Your task to perform on an android device: Search for the new nike shoes on Target Image 0: 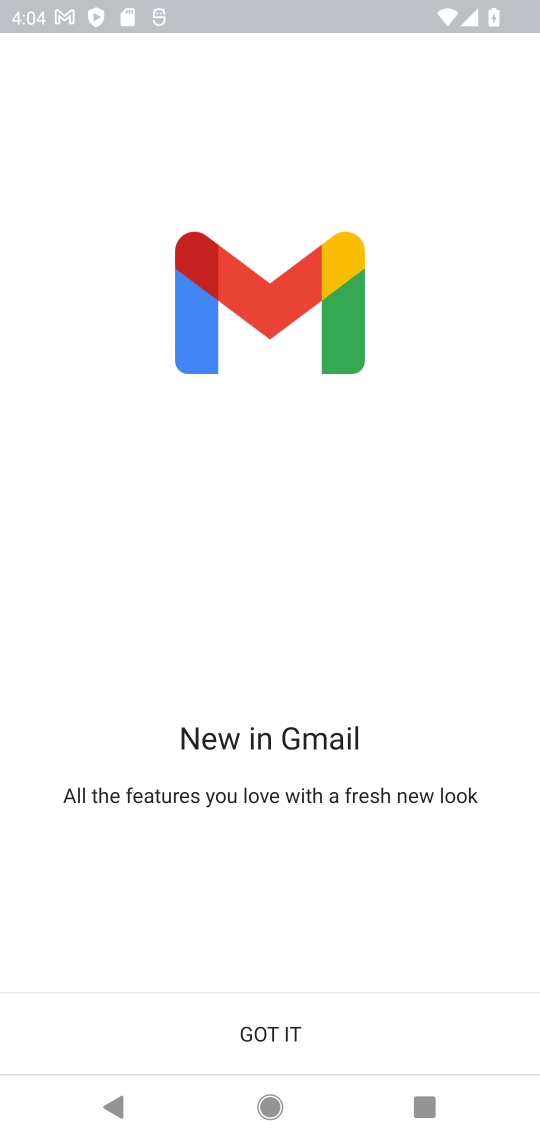
Step 0: press home button
Your task to perform on an android device: Search for the new nike shoes on Target Image 1: 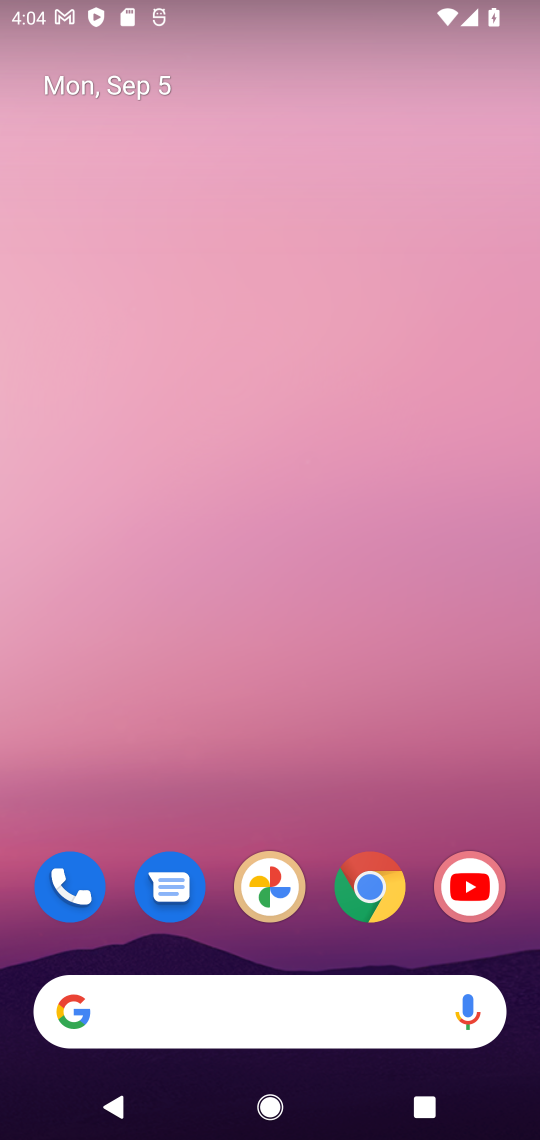
Step 1: click (383, 5)
Your task to perform on an android device: Search for the new nike shoes on Target Image 2: 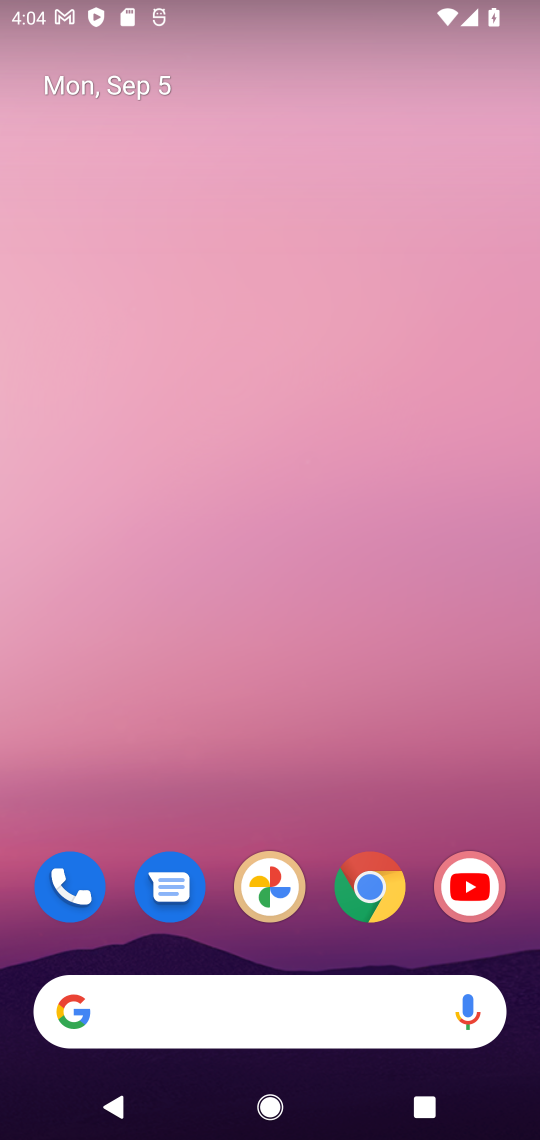
Step 2: drag from (330, 942) to (290, 282)
Your task to perform on an android device: Search for the new nike shoes on Target Image 3: 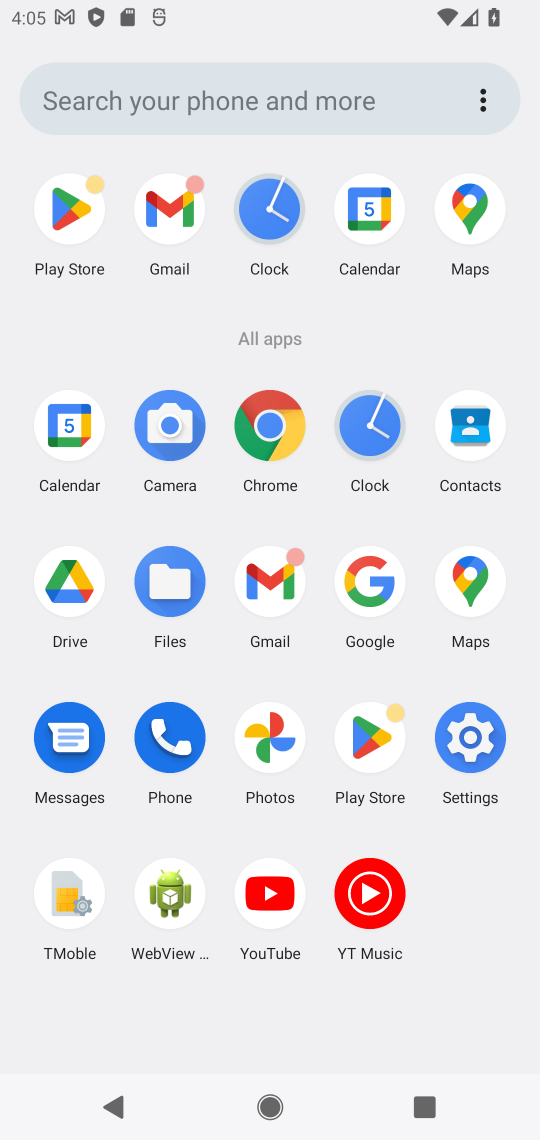
Step 3: click (267, 444)
Your task to perform on an android device: Search for the new nike shoes on Target Image 4: 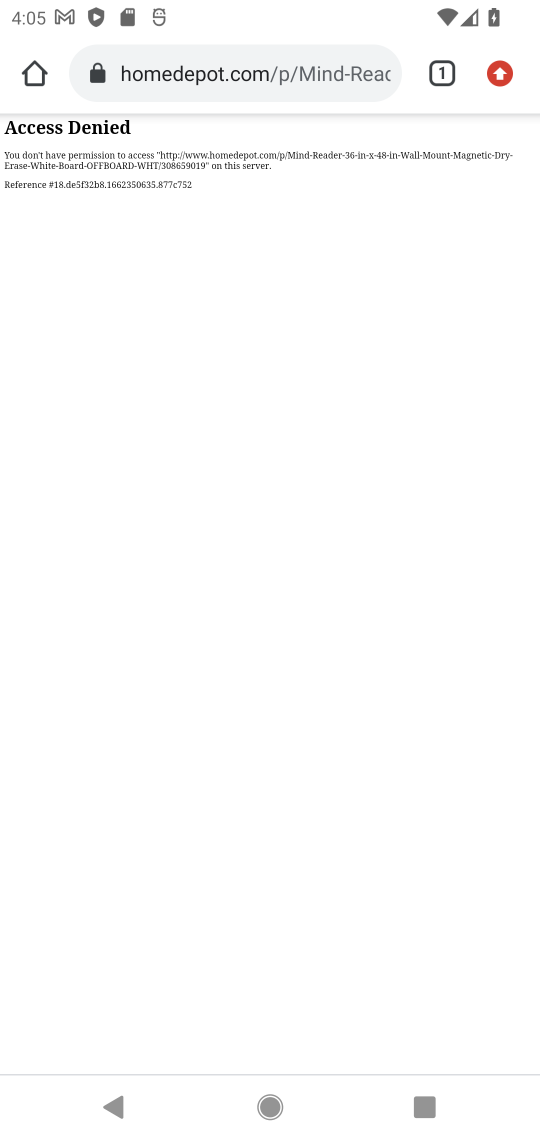
Step 4: click (360, 75)
Your task to perform on an android device: Search for the new nike shoes on Target Image 5: 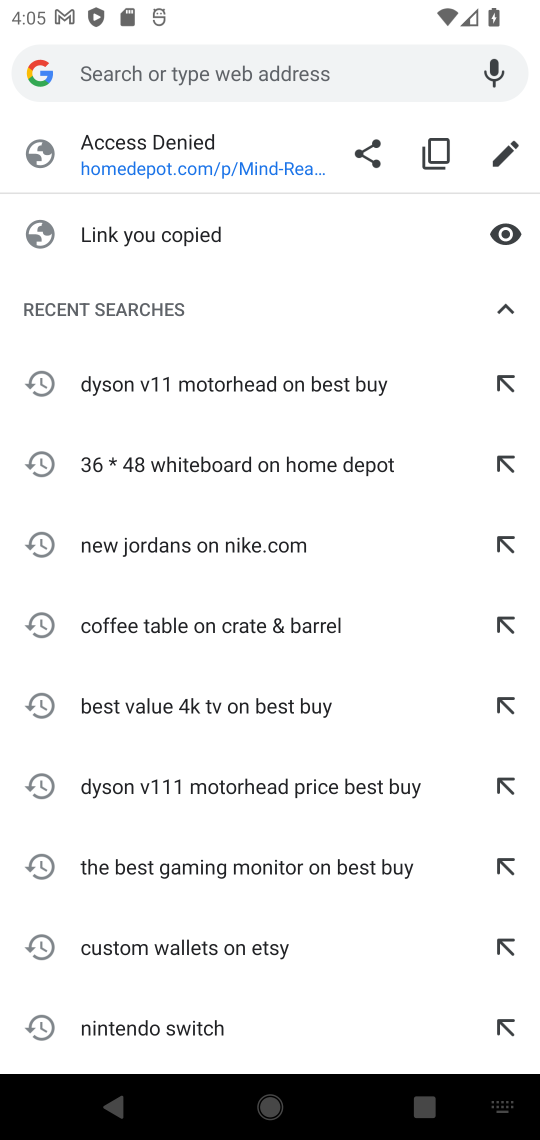
Step 5: type "the new nike shoes on Target"
Your task to perform on an android device: Search for the new nike shoes on Target Image 6: 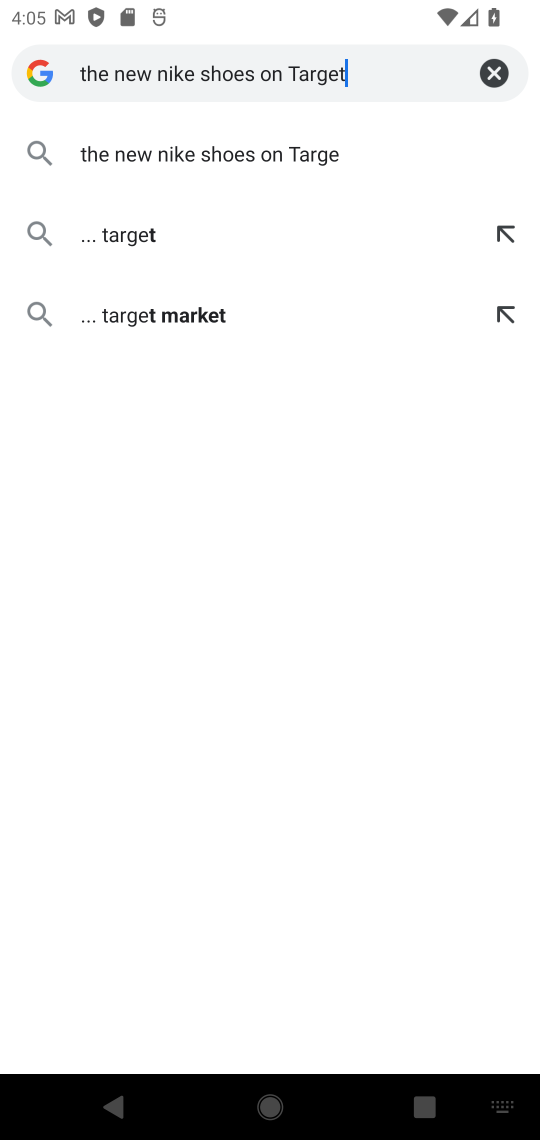
Step 6: type ""
Your task to perform on an android device: Search for the new nike shoes on Target Image 7: 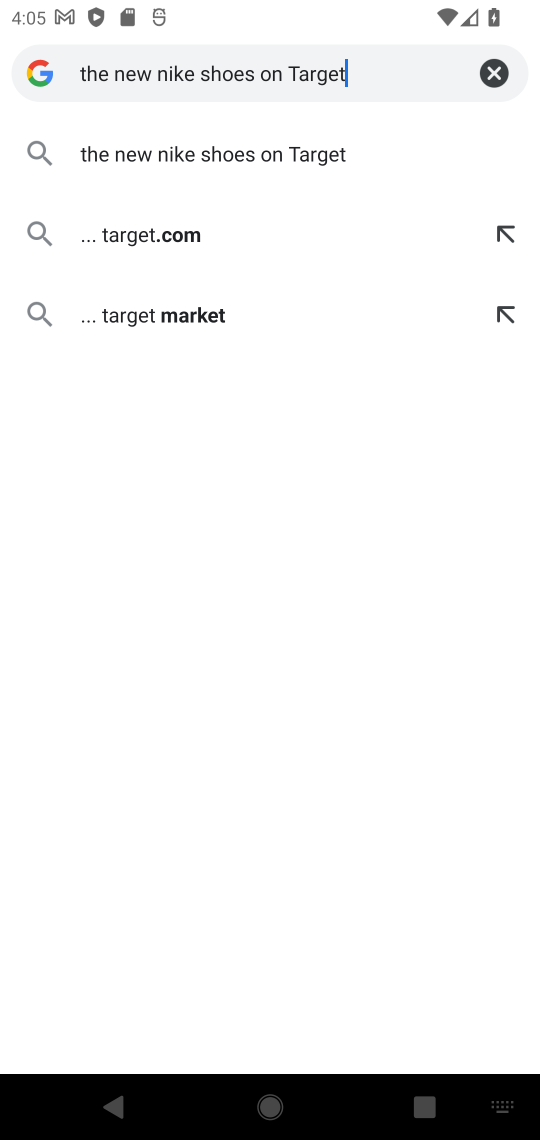
Step 7: press enter
Your task to perform on an android device: Search for the new nike shoes on Target Image 8: 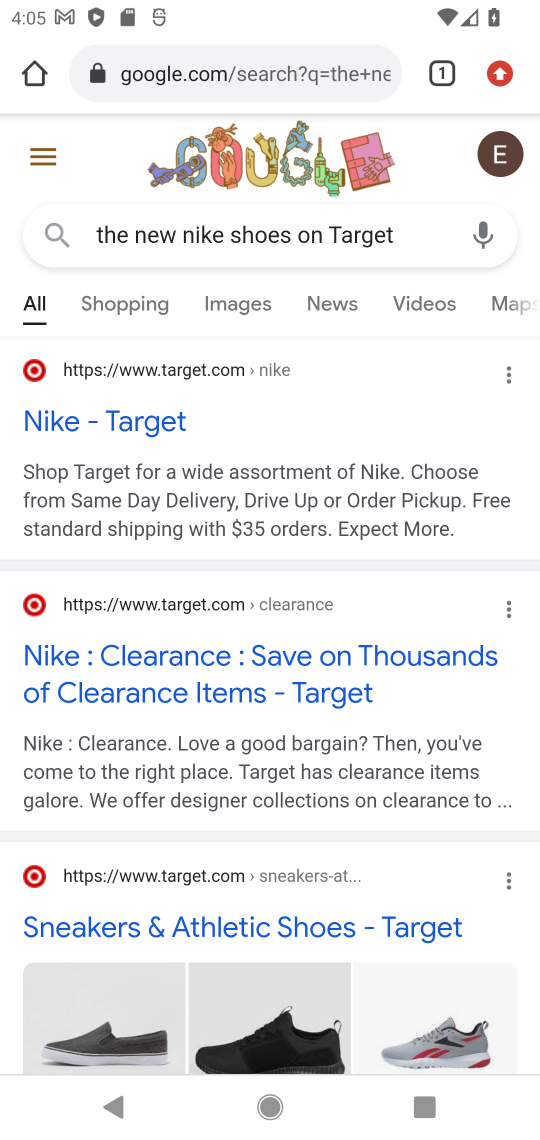
Step 8: click (77, 404)
Your task to perform on an android device: Search for the new nike shoes on Target Image 9: 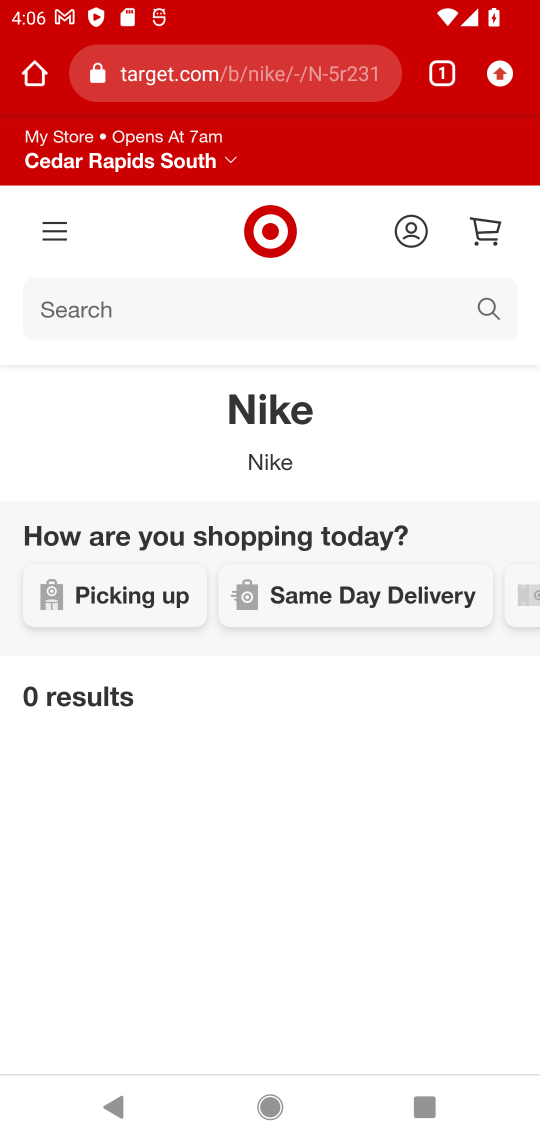
Step 9: task complete